Your task to perform on an android device: Open the phone app and click the voicemail tab. Image 0: 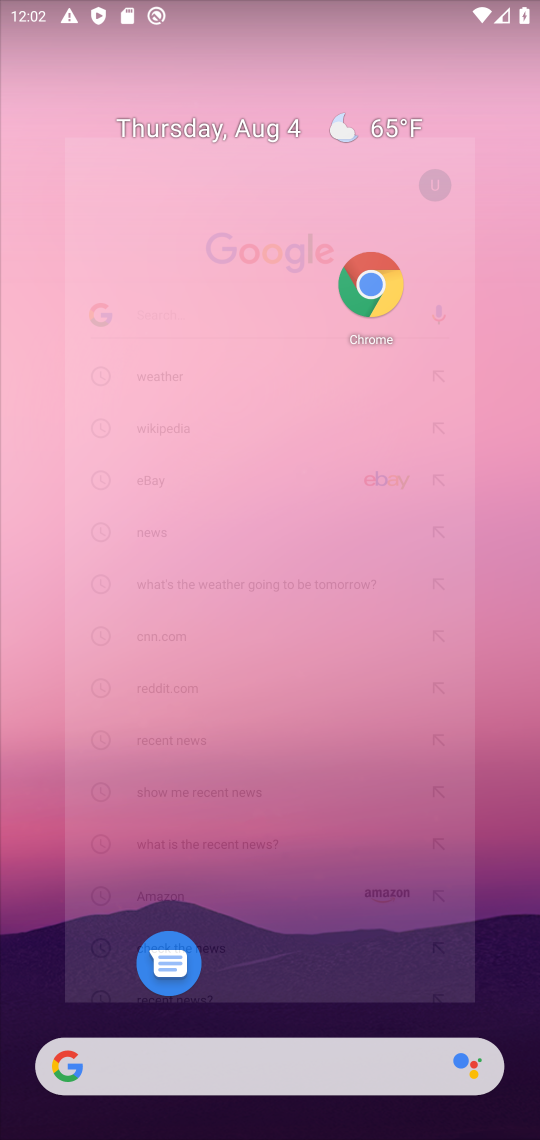
Step 0: press home button
Your task to perform on an android device: Open the phone app and click the voicemail tab. Image 1: 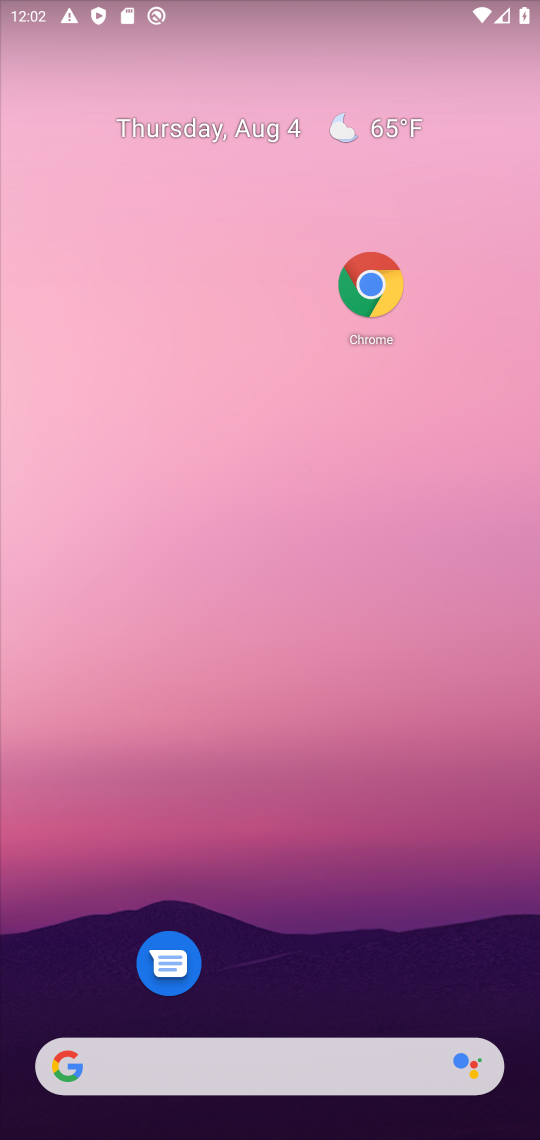
Step 1: drag from (264, 771) to (273, 347)
Your task to perform on an android device: Open the phone app and click the voicemail tab. Image 2: 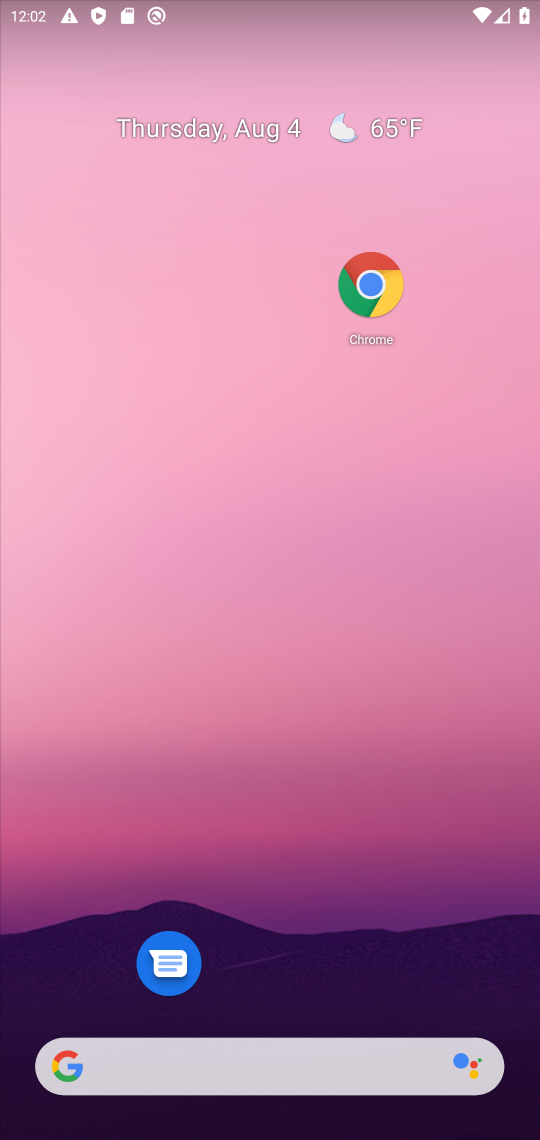
Step 2: drag from (281, 994) to (329, 382)
Your task to perform on an android device: Open the phone app and click the voicemail tab. Image 3: 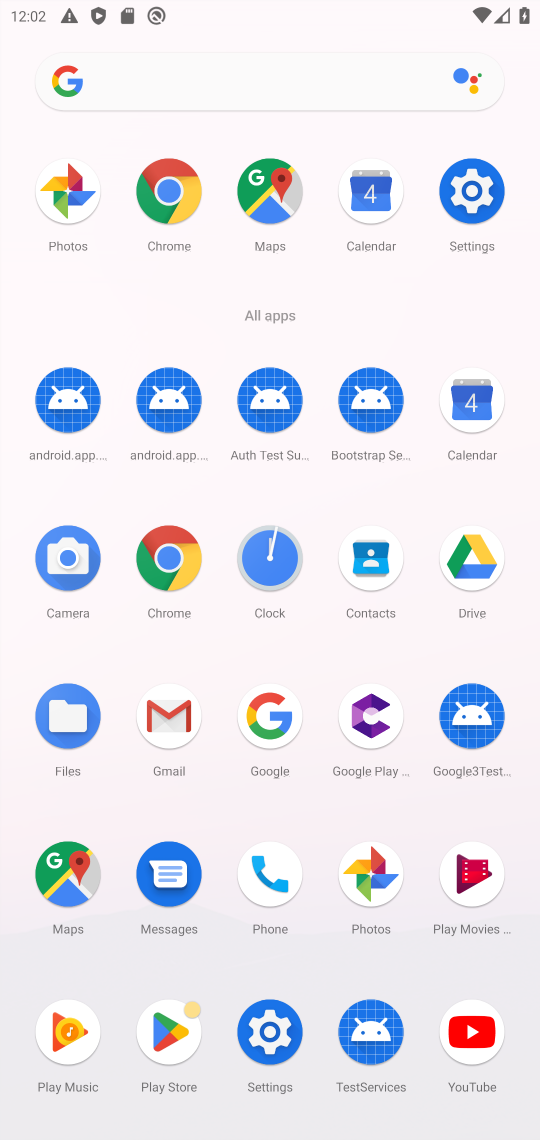
Step 3: click (256, 899)
Your task to perform on an android device: Open the phone app and click the voicemail tab. Image 4: 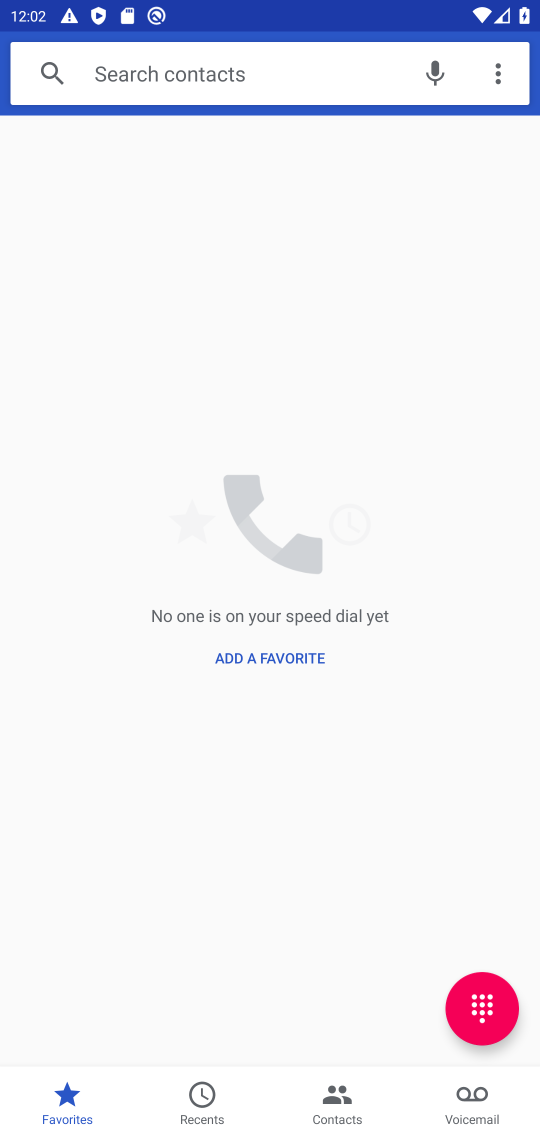
Step 4: click (453, 1107)
Your task to perform on an android device: Open the phone app and click the voicemail tab. Image 5: 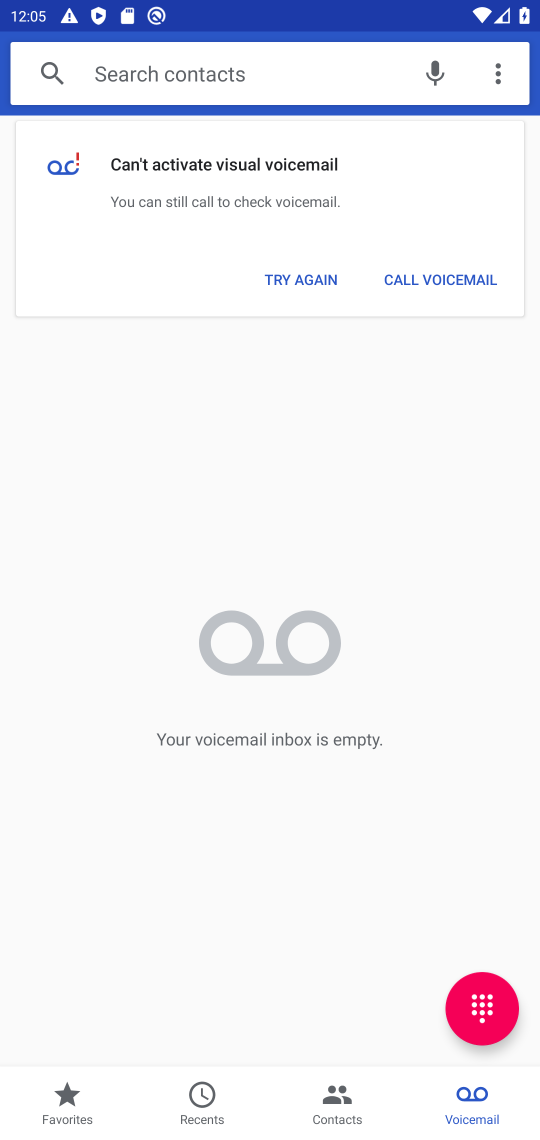
Step 5: task complete